Your task to perform on an android device: Go to battery settings Image 0: 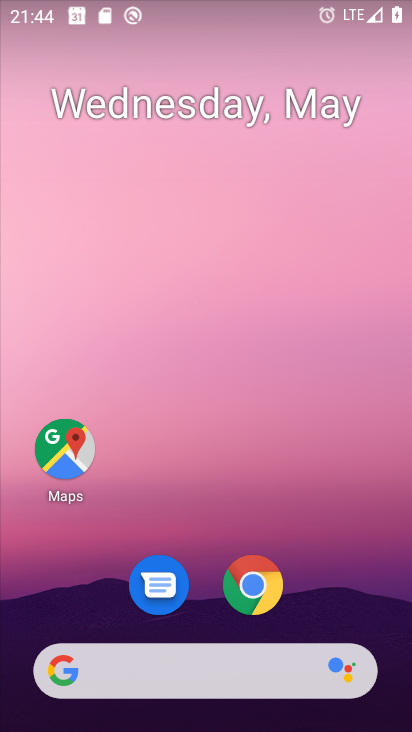
Step 0: drag from (333, 537) to (316, 62)
Your task to perform on an android device: Go to battery settings Image 1: 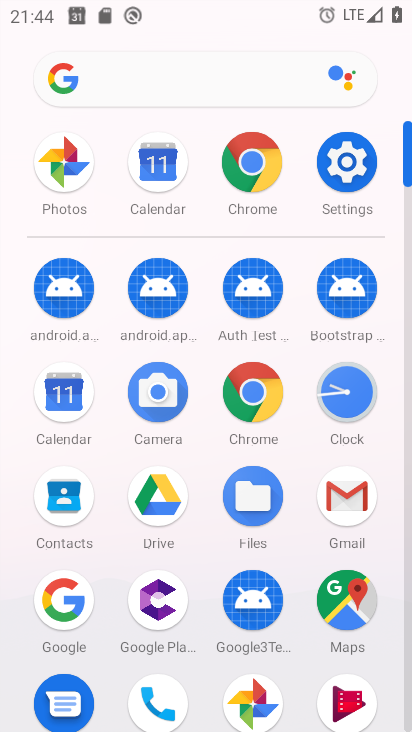
Step 1: click (337, 158)
Your task to perform on an android device: Go to battery settings Image 2: 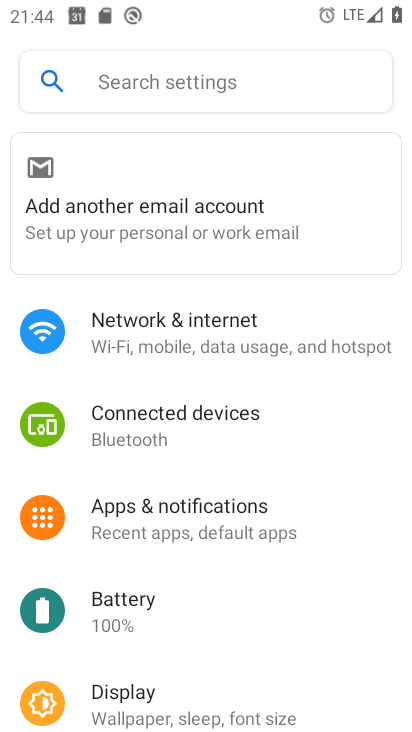
Step 2: click (142, 600)
Your task to perform on an android device: Go to battery settings Image 3: 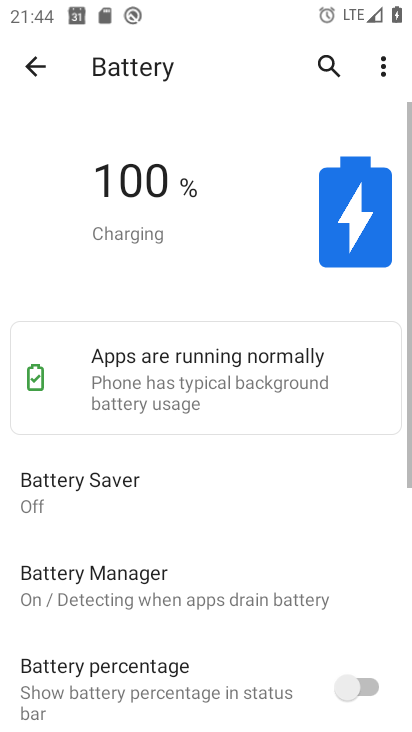
Step 3: task complete